Your task to perform on an android device: What's the weather going to be this weekend? Image 0: 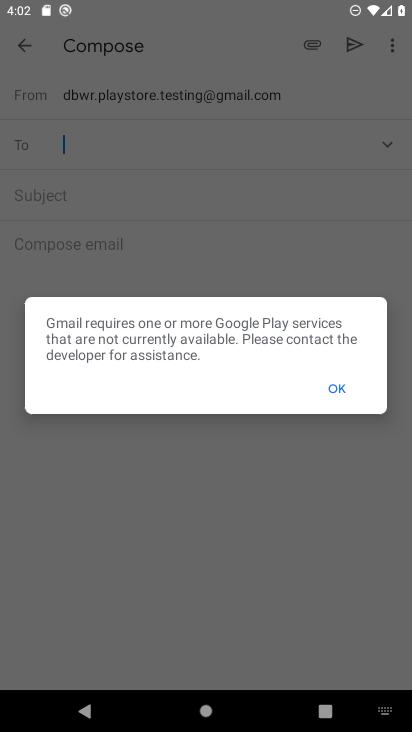
Step 0: press home button
Your task to perform on an android device: What's the weather going to be this weekend? Image 1: 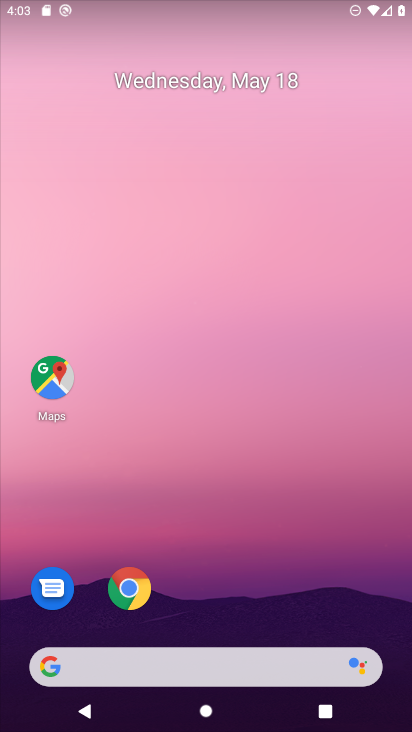
Step 1: click (210, 662)
Your task to perform on an android device: What's the weather going to be this weekend? Image 2: 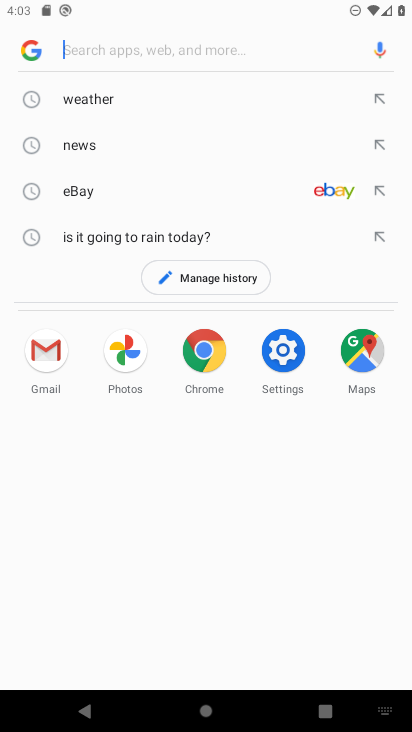
Step 2: click (185, 86)
Your task to perform on an android device: What's the weather going to be this weekend? Image 3: 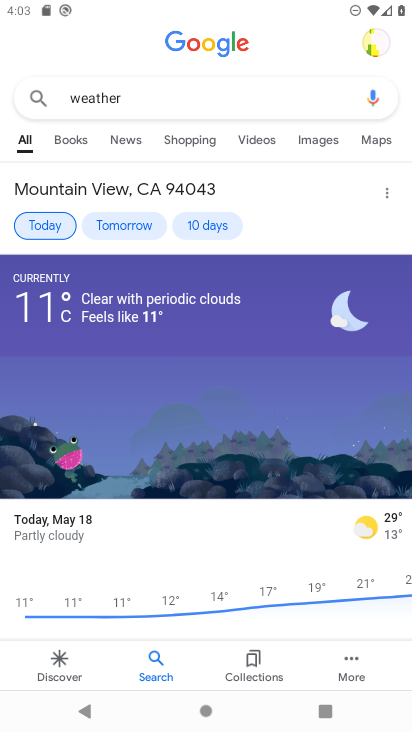
Step 3: click (199, 231)
Your task to perform on an android device: What's the weather going to be this weekend? Image 4: 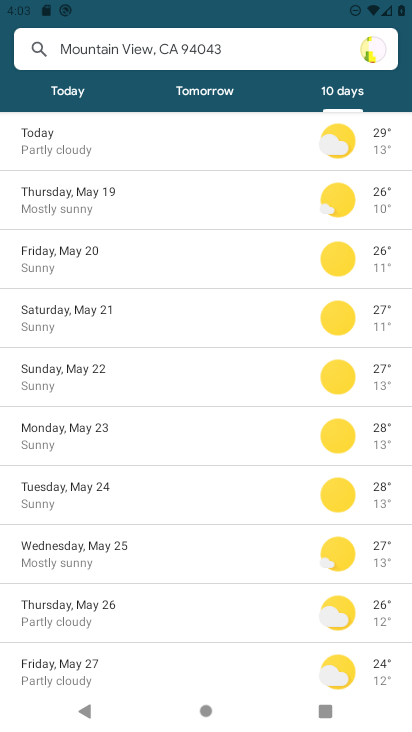
Step 4: task complete